Your task to perform on an android device: Open internet settings Image 0: 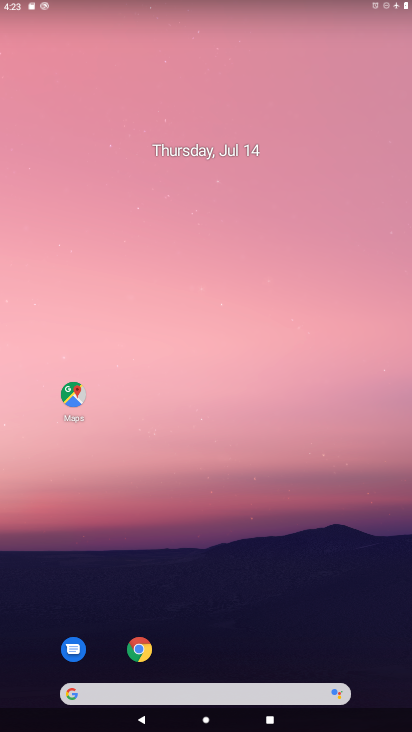
Step 0: drag from (217, 658) to (281, 52)
Your task to perform on an android device: Open internet settings Image 1: 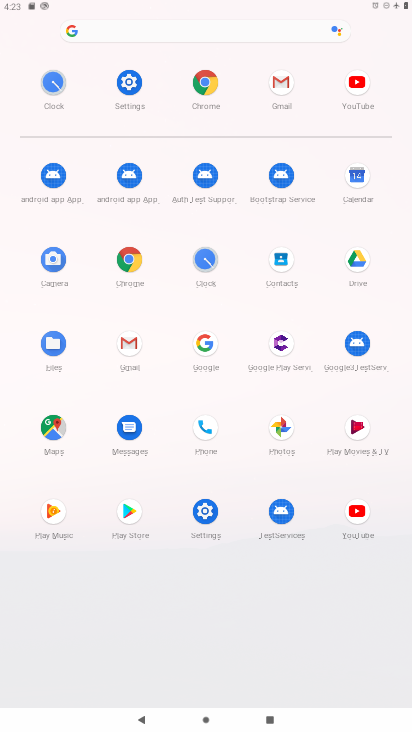
Step 1: click (199, 524)
Your task to perform on an android device: Open internet settings Image 2: 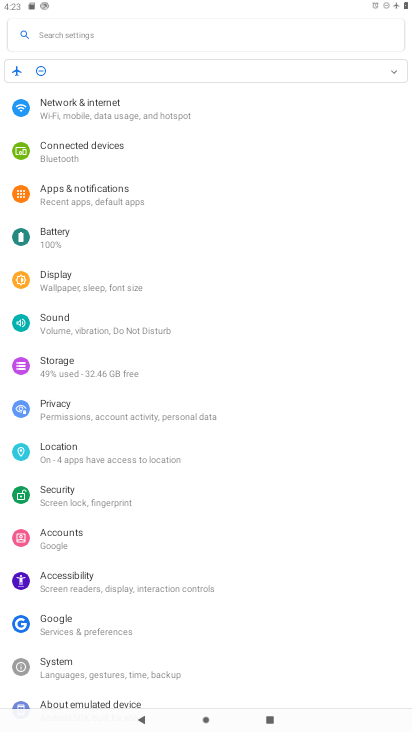
Step 2: click (148, 118)
Your task to perform on an android device: Open internet settings Image 3: 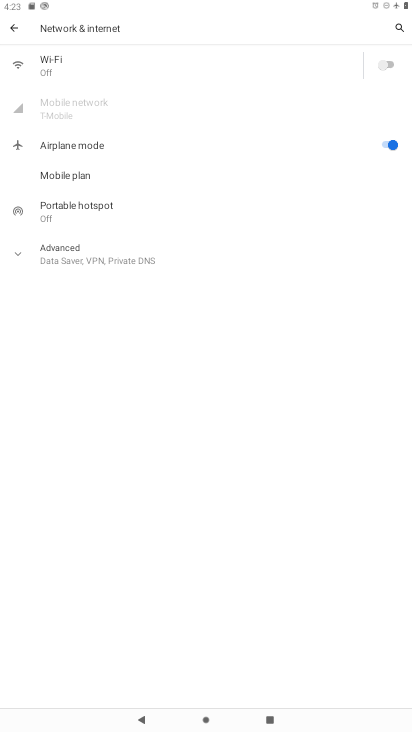
Step 3: task complete